Your task to perform on an android device: Open battery settings Image 0: 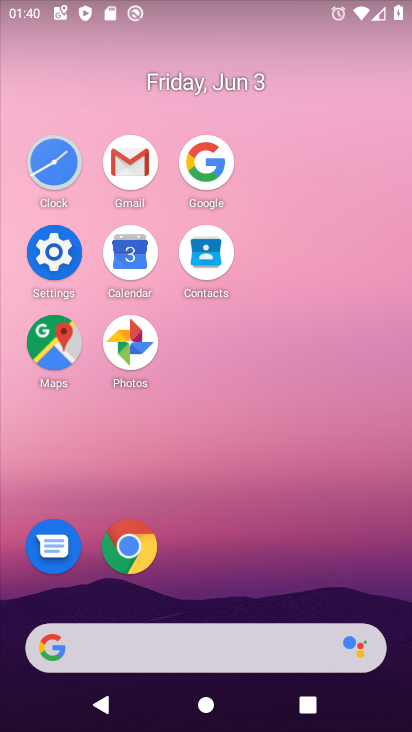
Step 0: click (74, 251)
Your task to perform on an android device: Open battery settings Image 1: 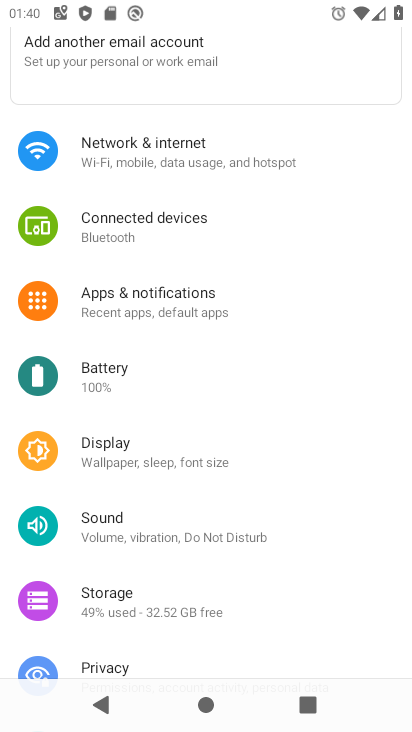
Step 1: click (140, 389)
Your task to perform on an android device: Open battery settings Image 2: 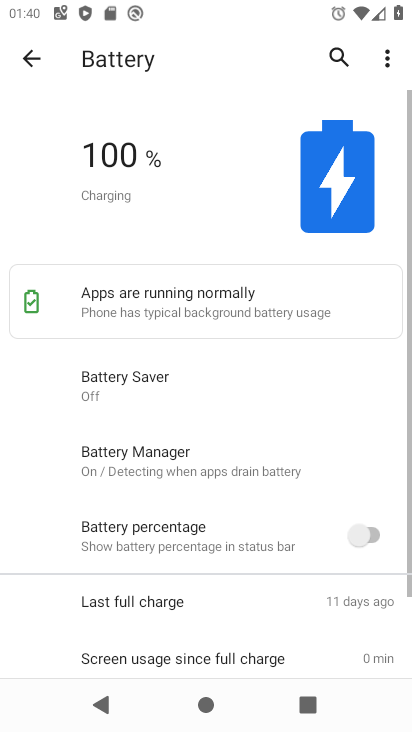
Step 2: task complete